Your task to perform on an android device: What's the weather? Image 0: 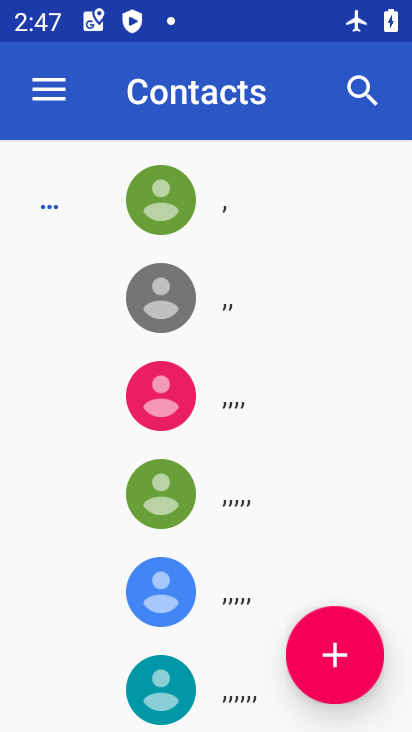
Step 0: press home button
Your task to perform on an android device: What's the weather? Image 1: 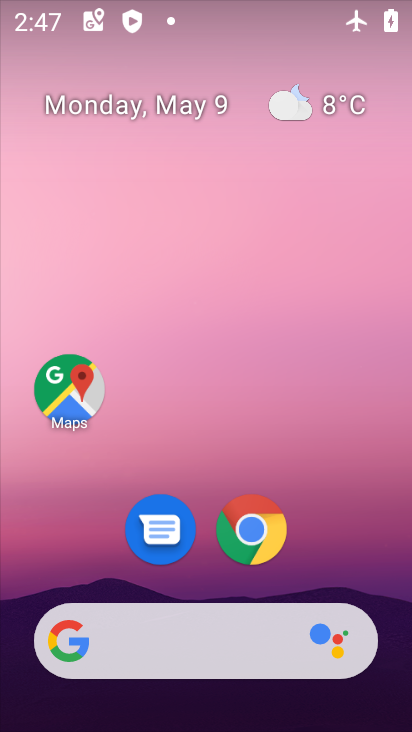
Step 1: click (296, 638)
Your task to perform on an android device: What's the weather? Image 2: 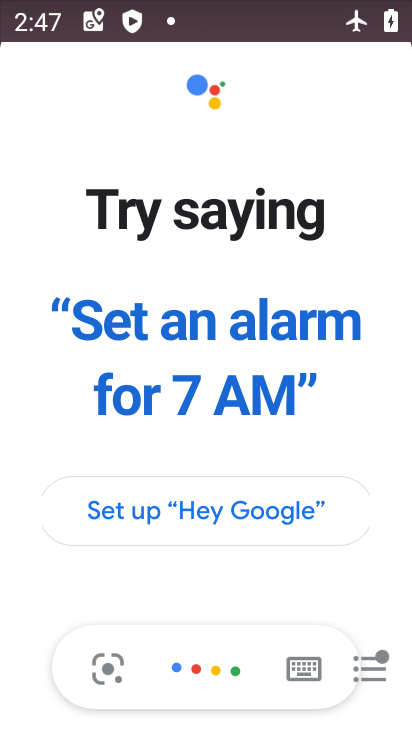
Step 2: press home button
Your task to perform on an android device: What's the weather? Image 3: 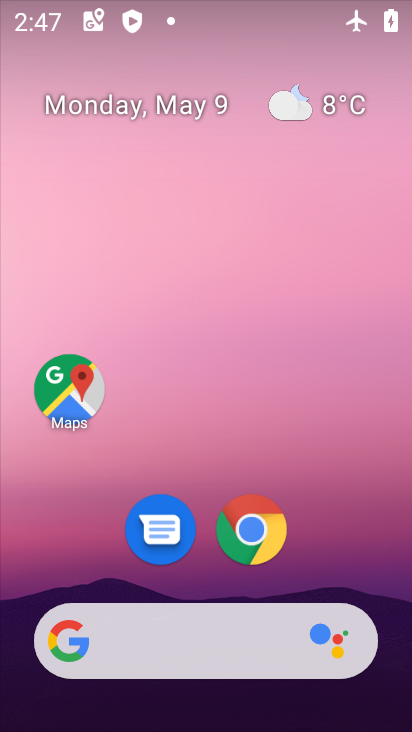
Step 3: click (207, 664)
Your task to perform on an android device: What's the weather? Image 4: 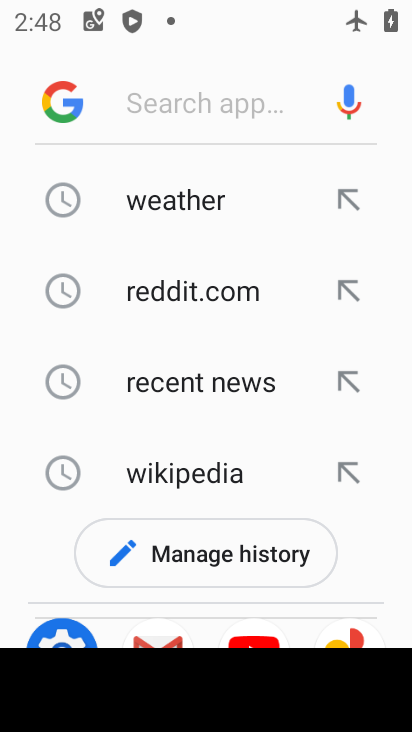
Step 4: click (224, 211)
Your task to perform on an android device: What's the weather? Image 5: 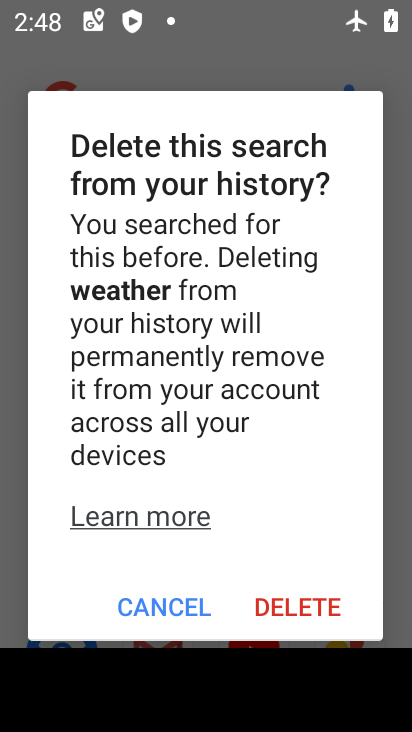
Step 5: click (286, 616)
Your task to perform on an android device: What's the weather? Image 6: 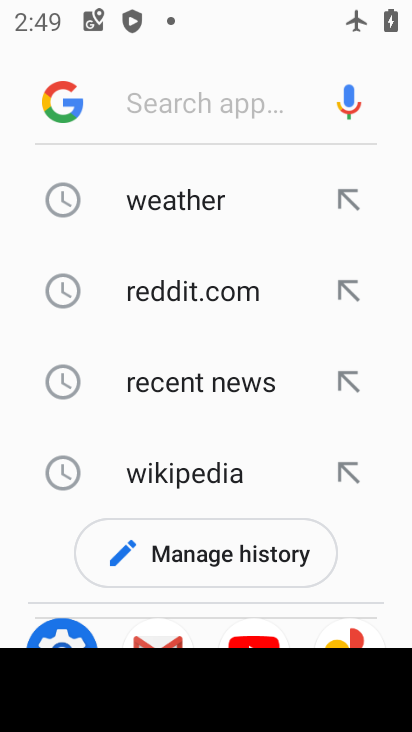
Step 6: click (242, 206)
Your task to perform on an android device: What's the weather? Image 7: 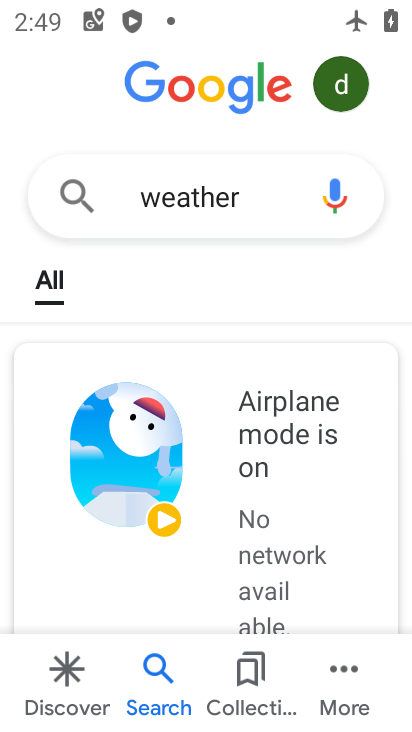
Step 7: task complete